Your task to perform on an android device: toggle location history Image 0: 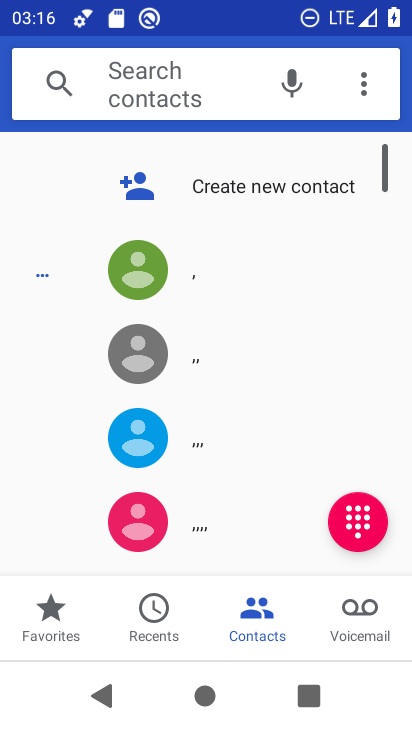
Step 0: press home button
Your task to perform on an android device: toggle location history Image 1: 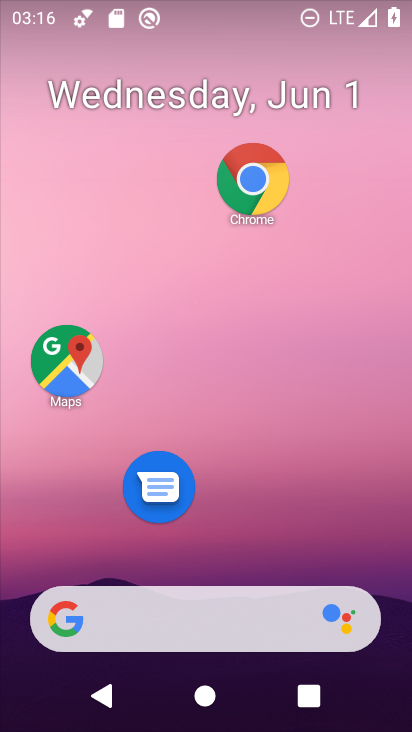
Step 1: click (65, 361)
Your task to perform on an android device: toggle location history Image 2: 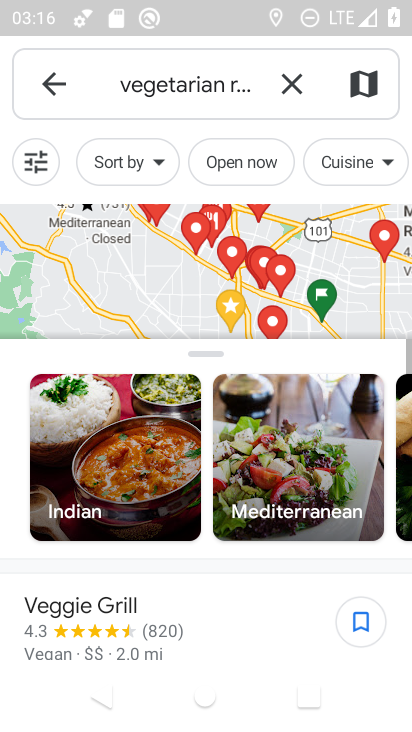
Step 2: click (288, 81)
Your task to perform on an android device: toggle location history Image 3: 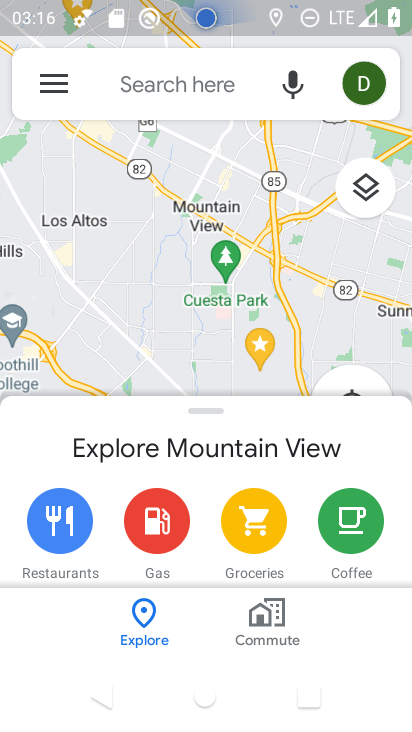
Step 3: click (57, 74)
Your task to perform on an android device: toggle location history Image 4: 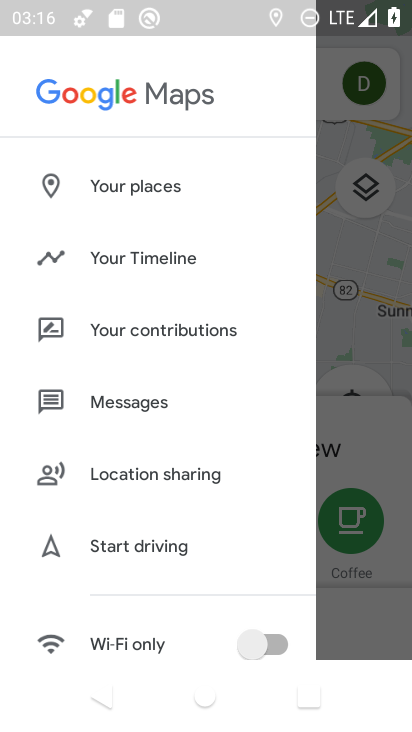
Step 4: drag from (166, 559) to (189, 384)
Your task to perform on an android device: toggle location history Image 5: 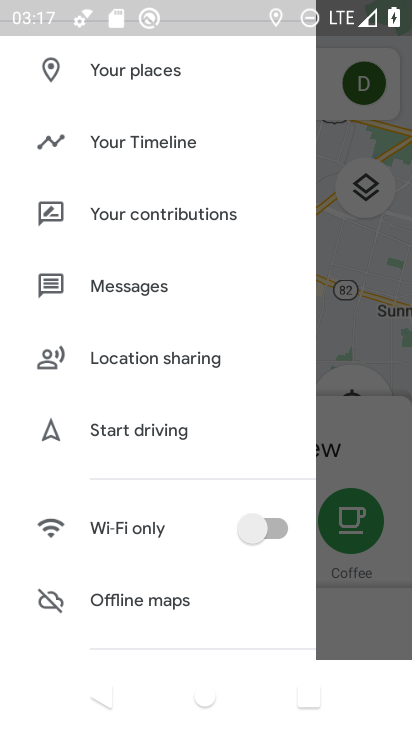
Step 5: click (135, 82)
Your task to perform on an android device: toggle location history Image 6: 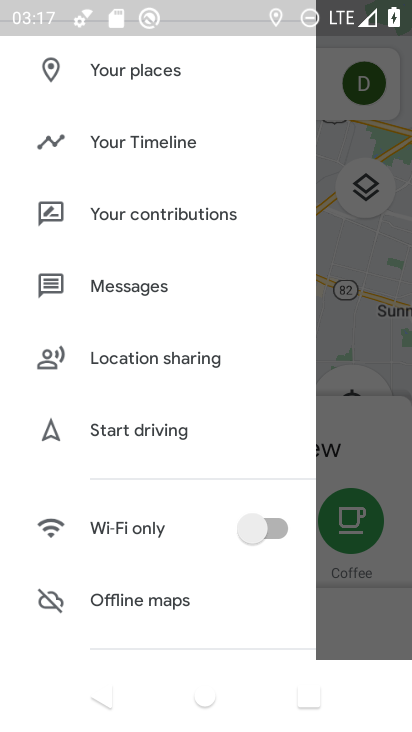
Step 6: click (139, 141)
Your task to perform on an android device: toggle location history Image 7: 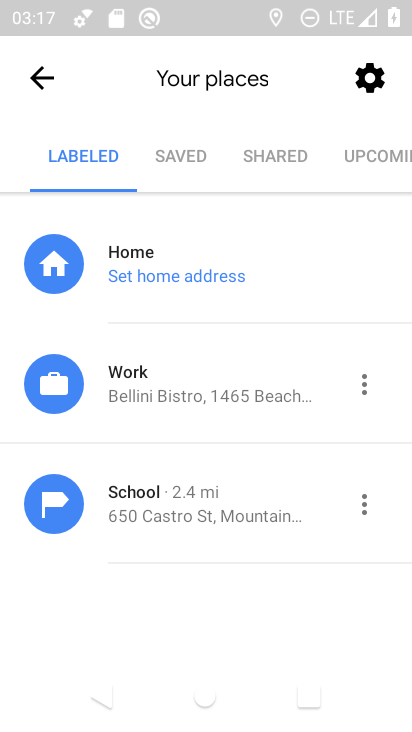
Step 7: click (57, 59)
Your task to perform on an android device: toggle location history Image 8: 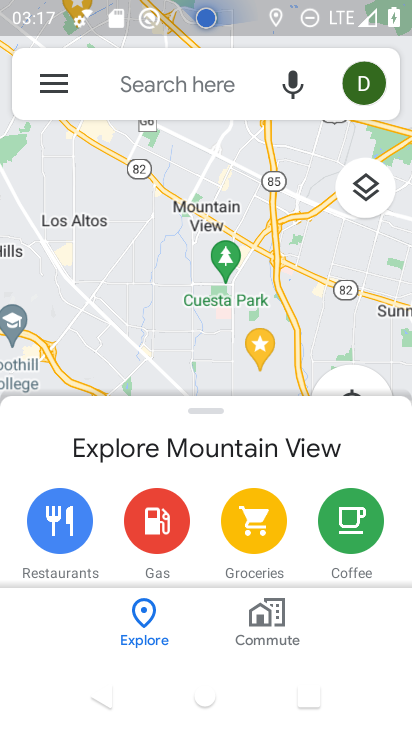
Step 8: click (64, 88)
Your task to perform on an android device: toggle location history Image 9: 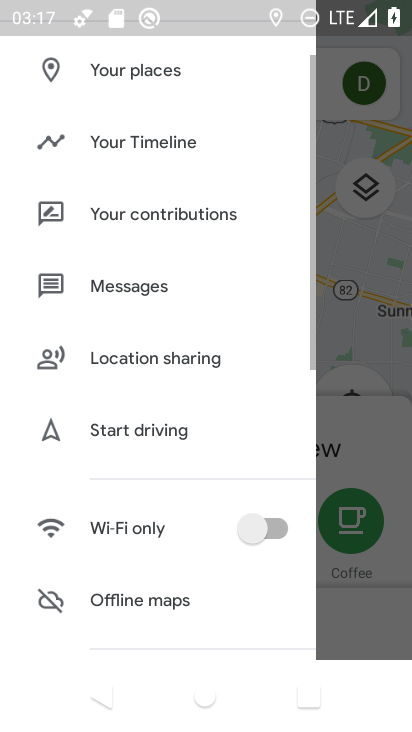
Step 9: click (123, 138)
Your task to perform on an android device: toggle location history Image 10: 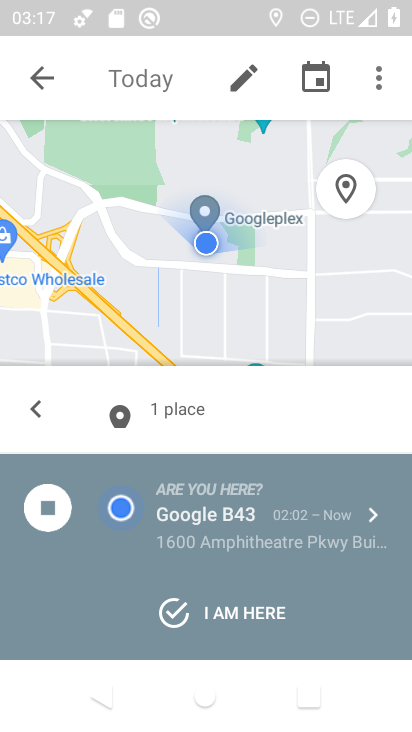
Step 10: click (367, 80)
Your task to perform on an android device: toggle location history Image 11: 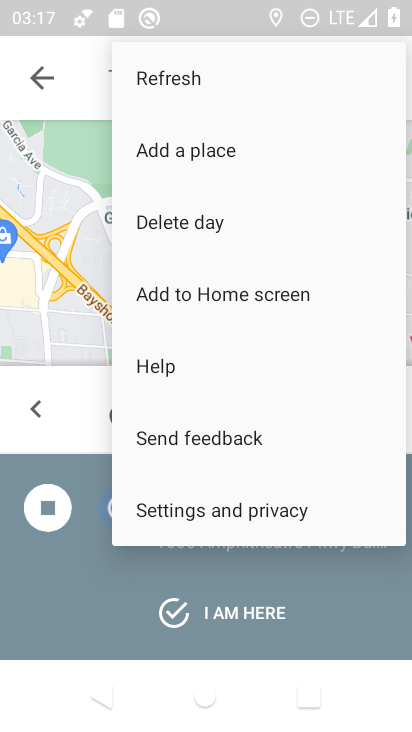
Step 11: click (209, 502)
Your task to perform on an android device: toggle location history Image 12: 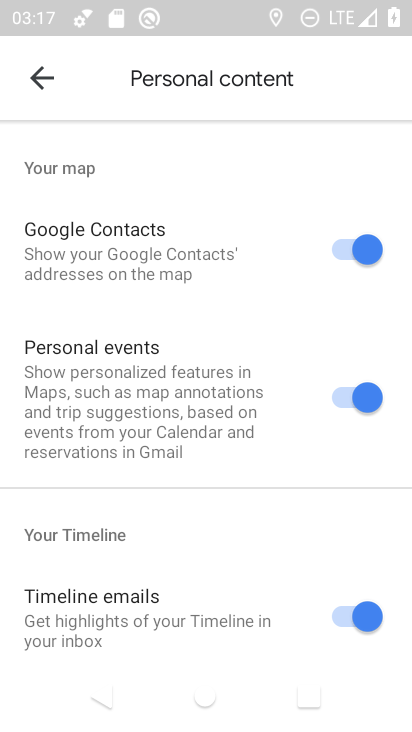
Step 12: drag from (149, 575) to (180, 254)
Your task to perform on an android device: toggle location history Image 13: 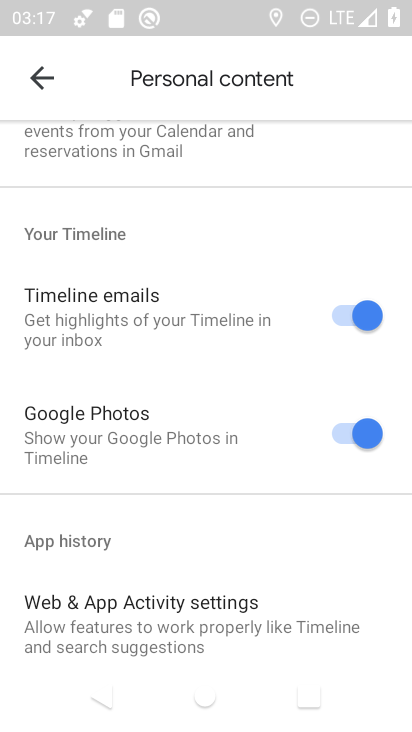
Step 13: drag from (173, 537) to (210, 297)
Your task to perform on an android device: toggle location history Image 14: 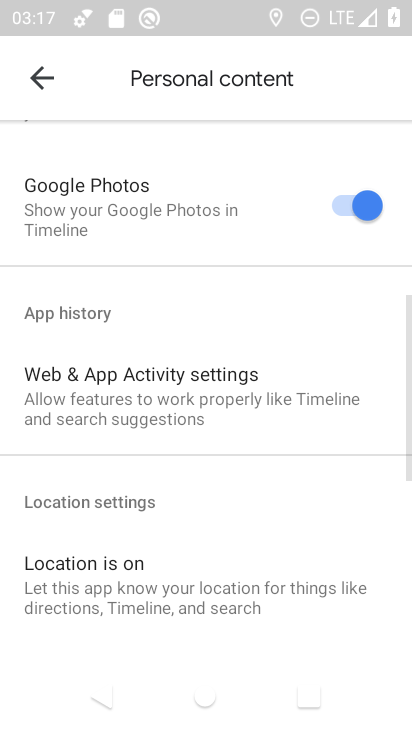
Step 14: drag from (174, 581) to (186, 407)
Your task to perform on an android device: toggle location history Image 15: 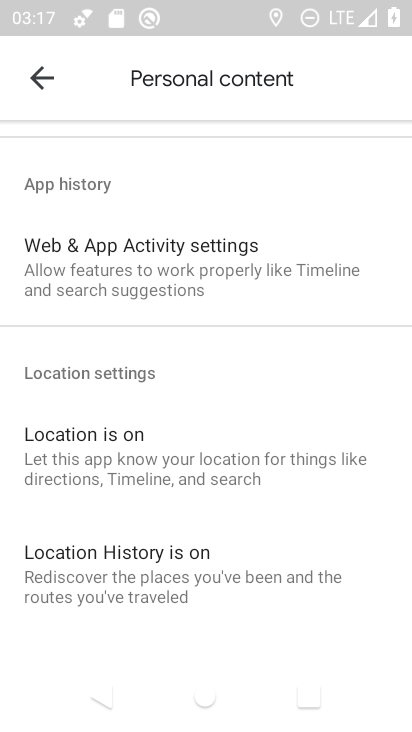
Step 15: click (152, 564)
Your task to perform on an android device: toggle location history Image 16: 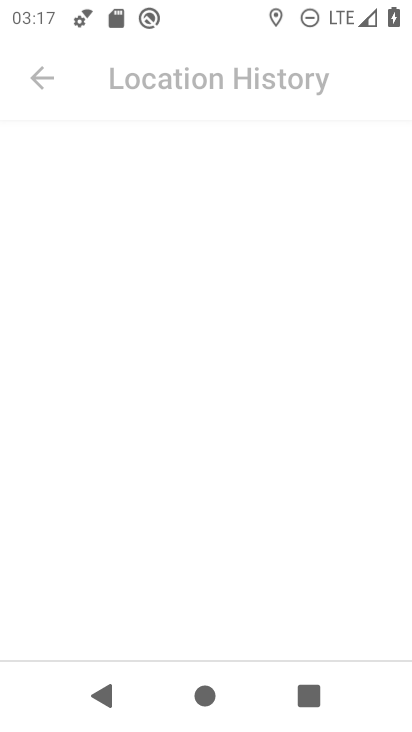
Step 16: drag from (180, 573) to (208, 199)
Your task to perform on an android device: toggle location history Image 17: 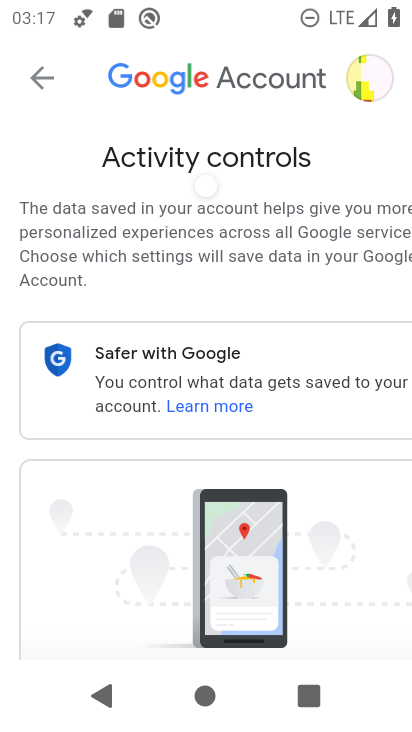
Step 17: drag from (159, 572) to (222, 213)
Your task to perform on an android device: toggle location history Image 18: 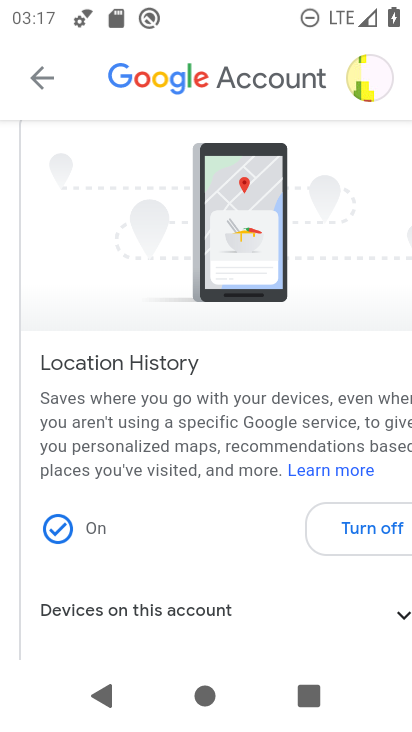
Step 18: click (338, 521)
Your task to perform on an android device: toggle location history Image 19: 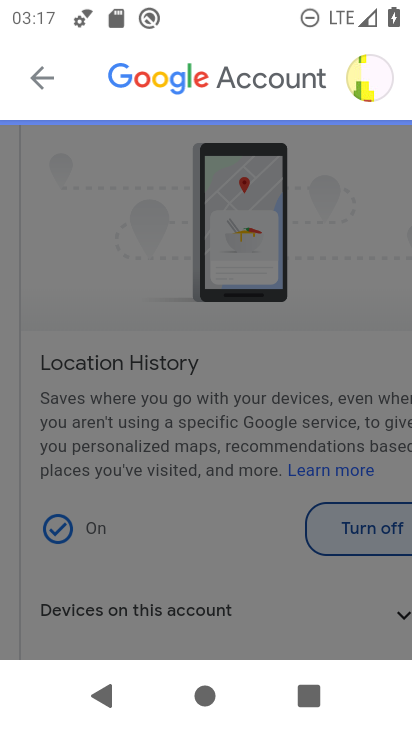
Step 19: task complete